Your task to perform on an android device: choose inbox layout in the gmail app Image 0: 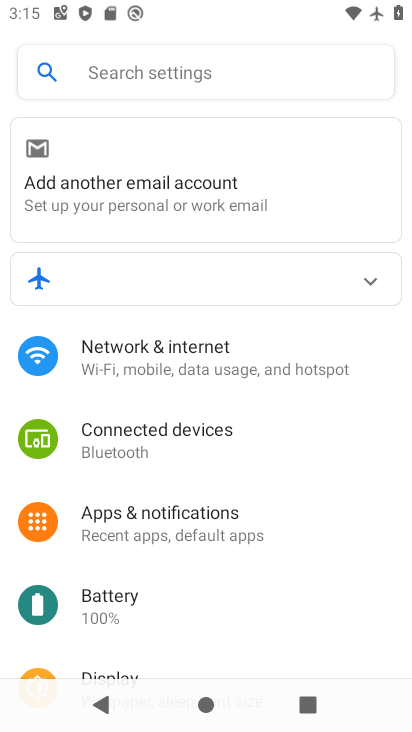
Step 0: press home button
Your task to perform on an android device: choose inbox layout in the gmail app Image 1: 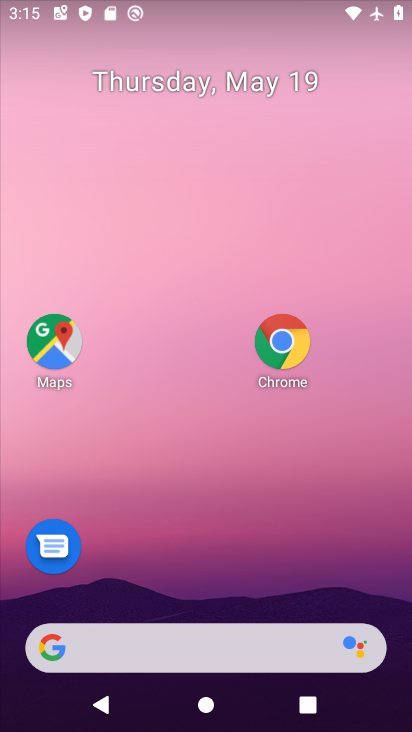
Step 1: drag from (156, 654) to (290, 123)
Your task to perform on an android device: choose inbox layout in the gmail app Image 2: 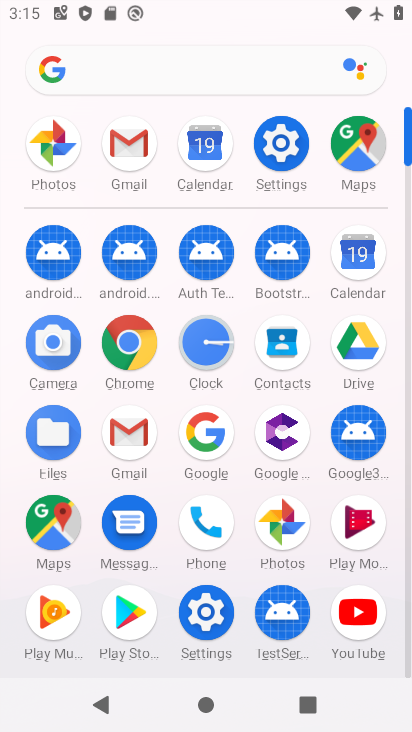
Step 2: click (124, 155)
Your task to perform on an android device: choose inbox layout in the gmail app Image 3: 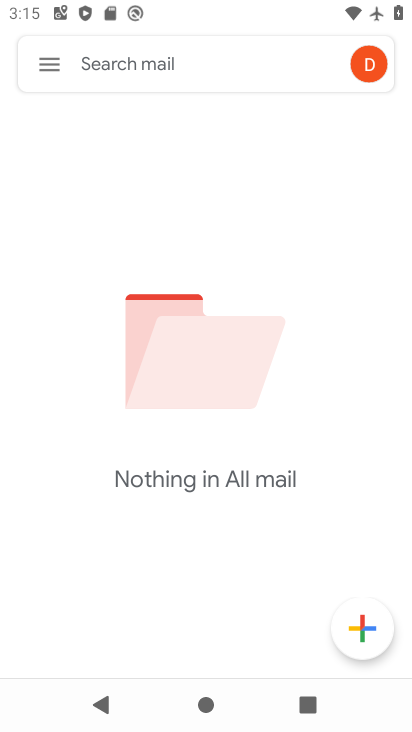
Step 3: click (45, 65)
Your task to perform on an android device: choose inbox layout in the gmail app Image 4: 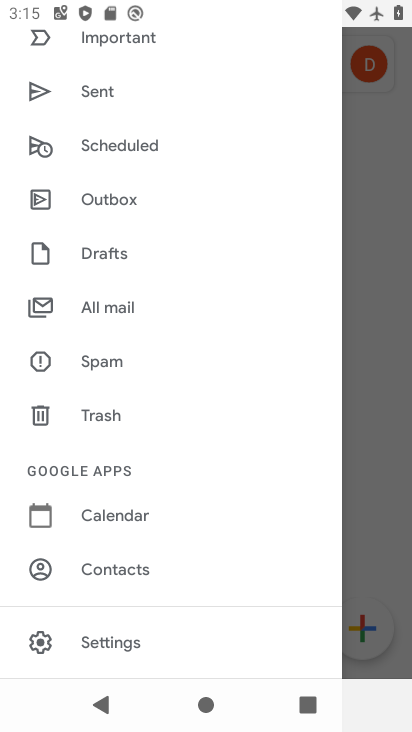
Step 4: click (129, 642)
Your task to perform on an android device: choose inbox layout in the gmail app Image 5: 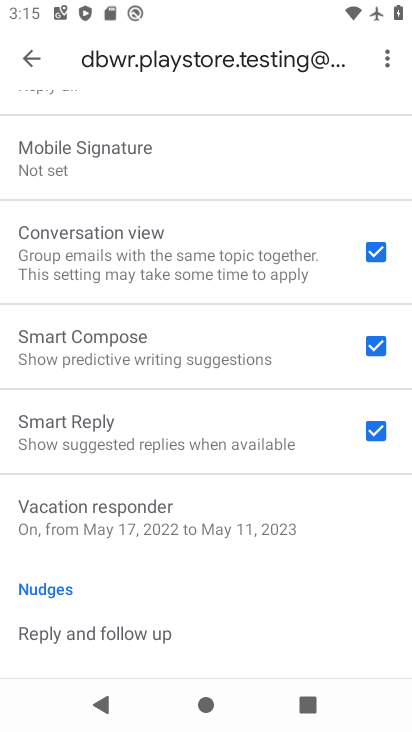
Step 5: drag from (283, 143) to (315, 595)
Your task to perform on an android device: choose inbox layout in the gmail app Image 6: 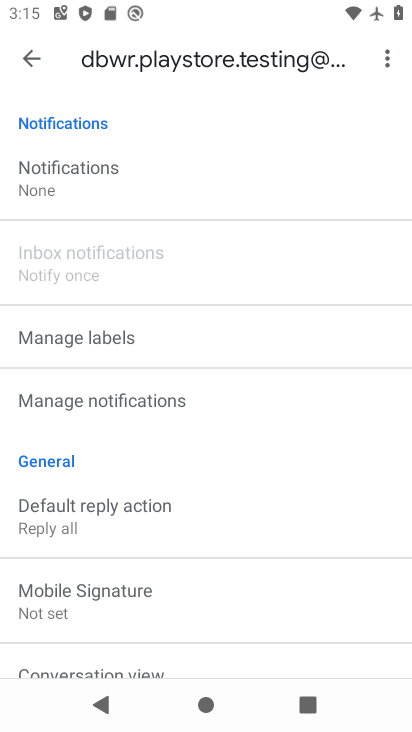
Step 6: drag from (260, 183) to (274, 533)
Your task to perform on an android device: choose inbox layout in the gmail app Image 7: 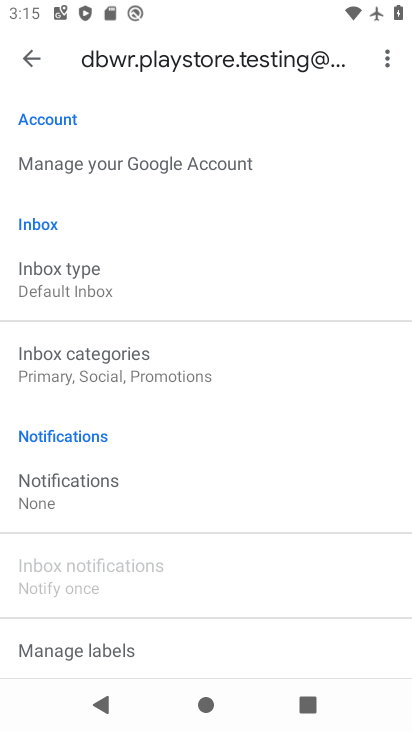
Step 7: click (74, 275)
Your task to perform on an android device: choose inbox layout in the gmail app Image 8: 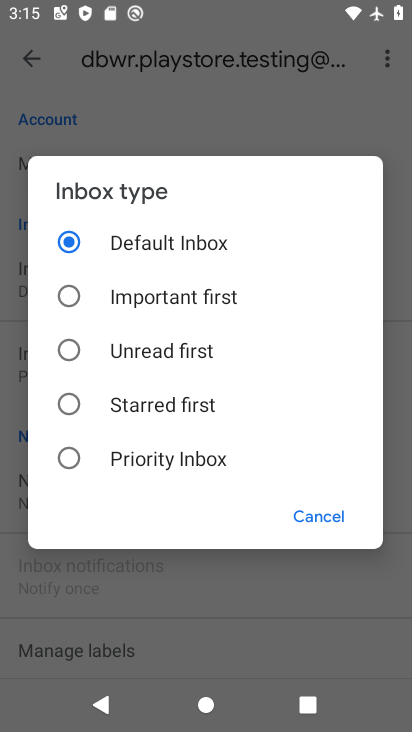
Step 8: click (74, 343)
Your task to perform on an android device: choose inbox layout in the gmail app Image 9: 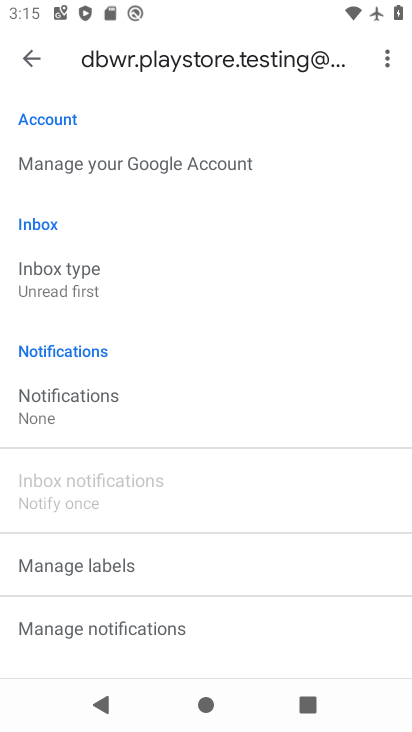
Step 9: task complete